Your task to perform on an android device: Do I have any events this weekend? Image 0: 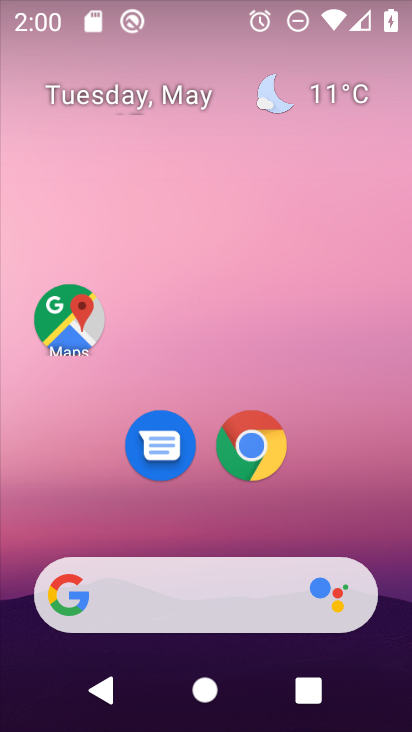
Step 0: drag from (335, 517) to (318, 159)
Your task to perform on an android device: Do I have any events this weekend? Image 1: 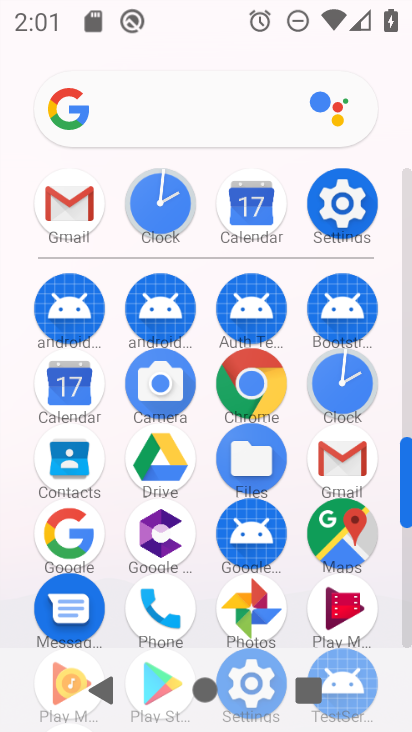
Step 1: click (249, 218)
Your task to perform on an android device: Do I have any events this weekend? Image 2: 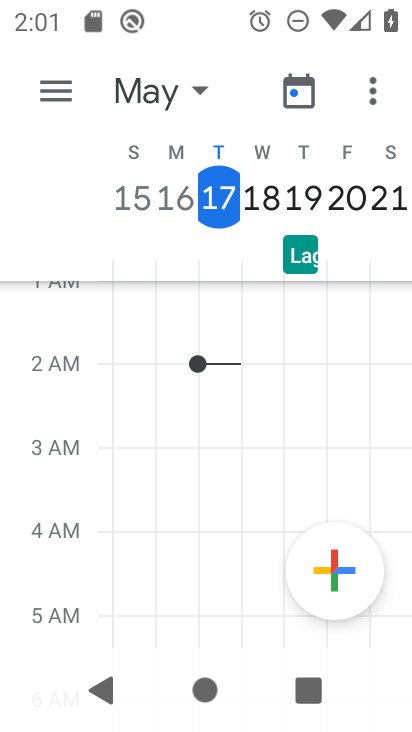
Step 2: click (54, 88)
Your task to perform on an android device: Do I have any events this weekend? Image 3: 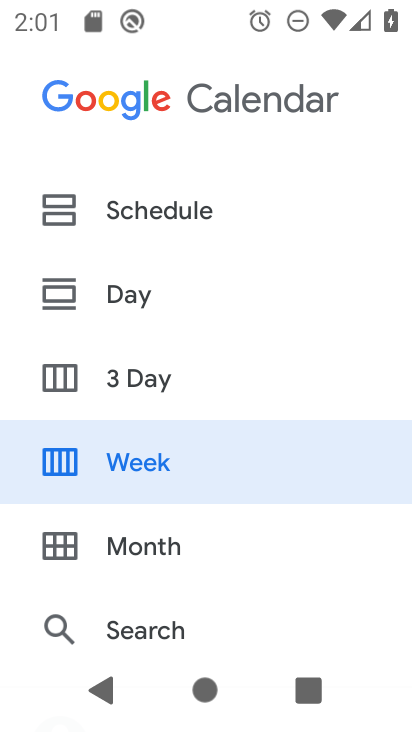
Step 3: click (278, 452)
Your task to perform on an android device: Do I have any events this weekend? Image 4: 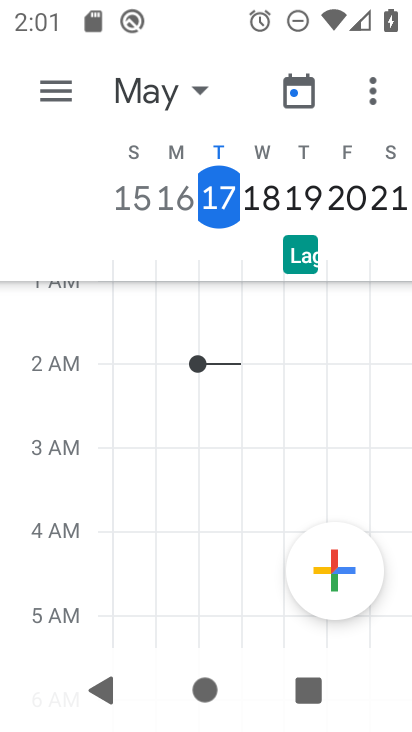
Step 4: click (69, 96)
Your task to perform on an android device: Do I have any events this weekend? Image 5: 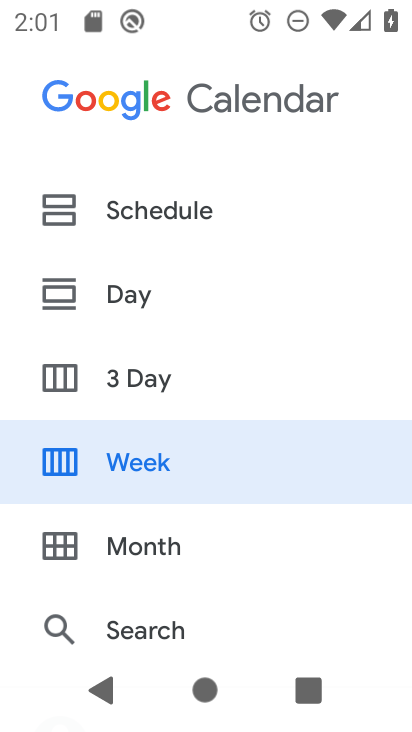
Step 5: click (116, 391)
Your task to perform on an android device: Do I have any events this weekend? Image 6: 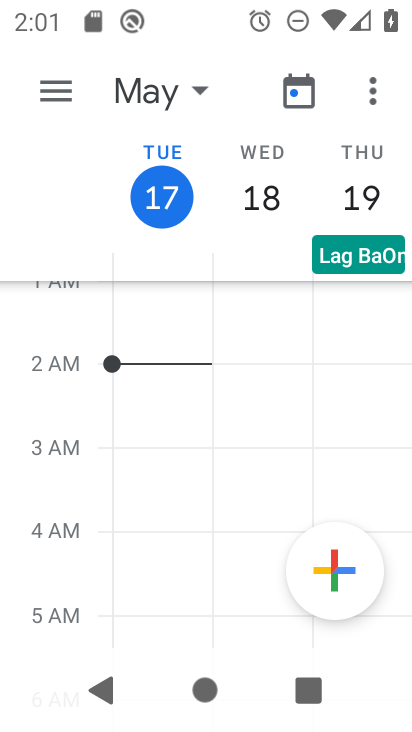
Step 6: click (193, 94)
Your task to perform on an android device: Do I have any events this weekend? Image 7: 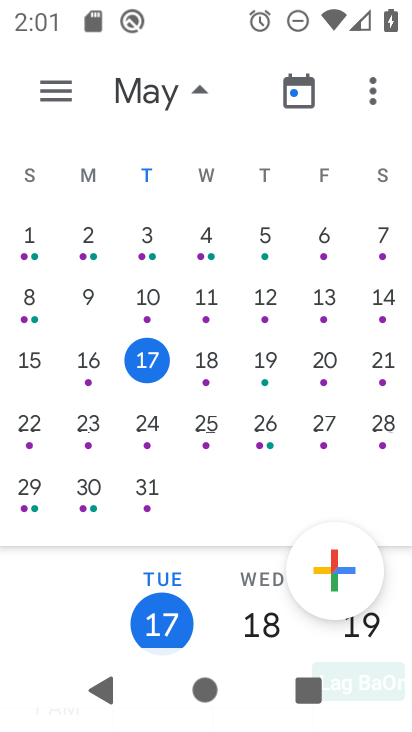
Step 7: click (327, 360)
Your task to perform on an android device: Do I have any events this weekend? Image 8: 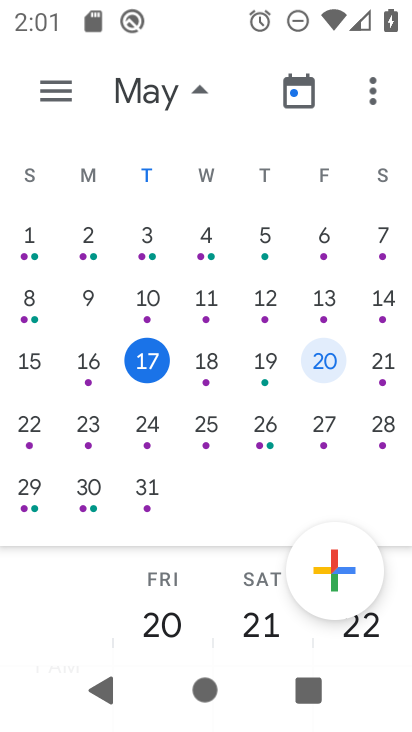
Step 8: task complete